Your task to perform on an android device: all mails in gmail Image 0: 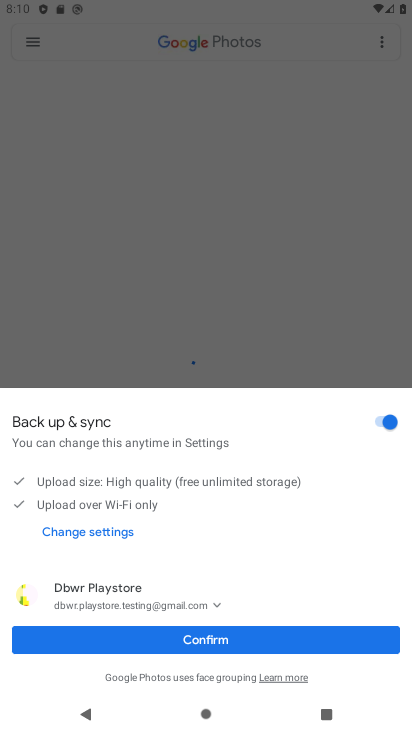
Step 0: press home button
Your task to perform on an android device: all mails in gmail Image 1: 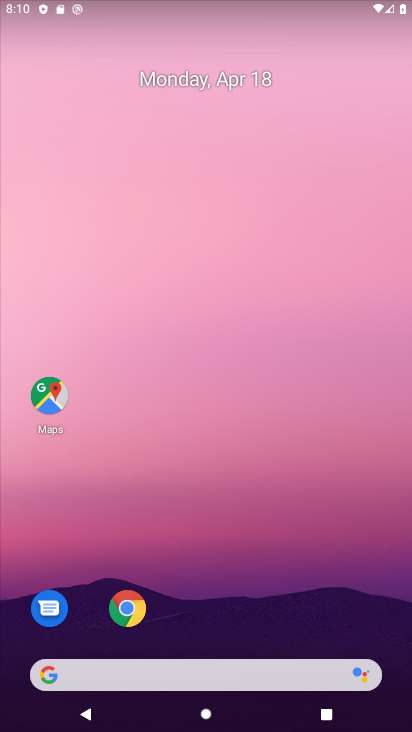
Step 1: drag from (184, 544) to (228, 25)
Your task to perform on an android device: all mails in gmail Image 2: 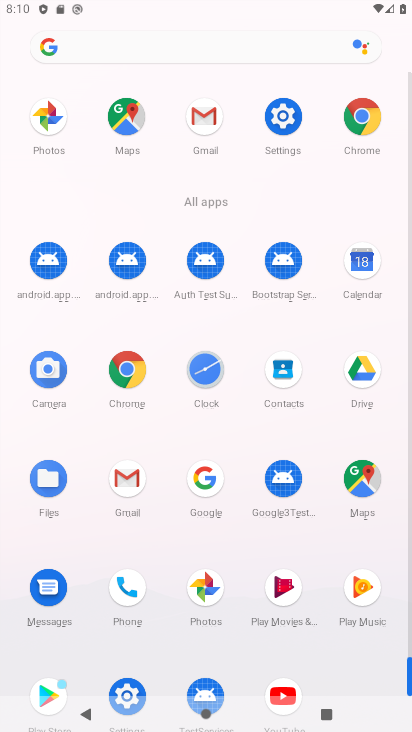
Step 2: click (205, 112)
Your task to perform on an android device: all mails in gmail Image 3: 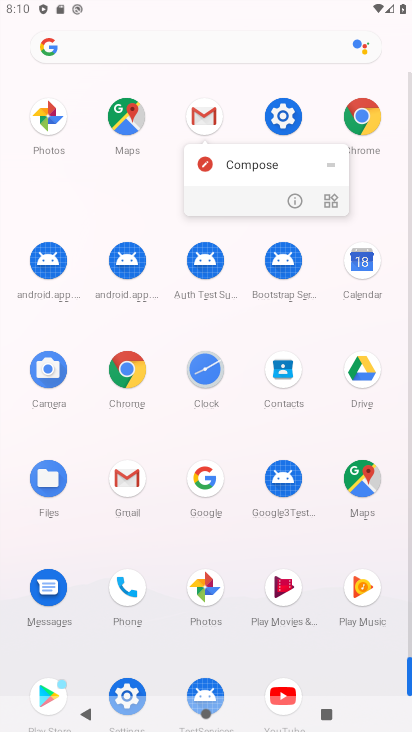
Step 3: click (205, 112)
Your task to perform on an android device: all mails in gmail Image 4: 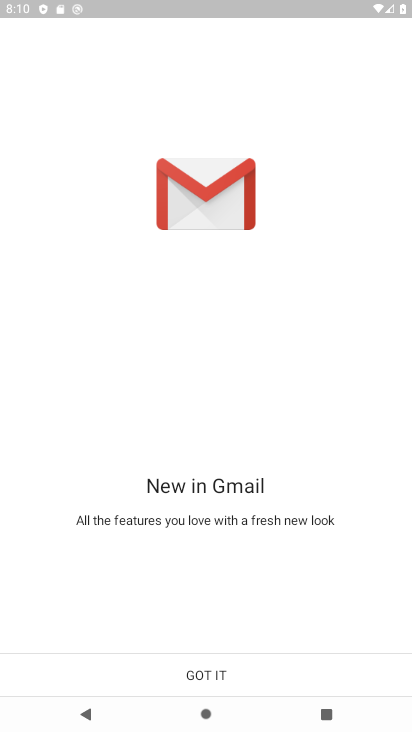
Step 4: click (205, 665)
Your task to perform on an android device: all mails in gmail Image 5: 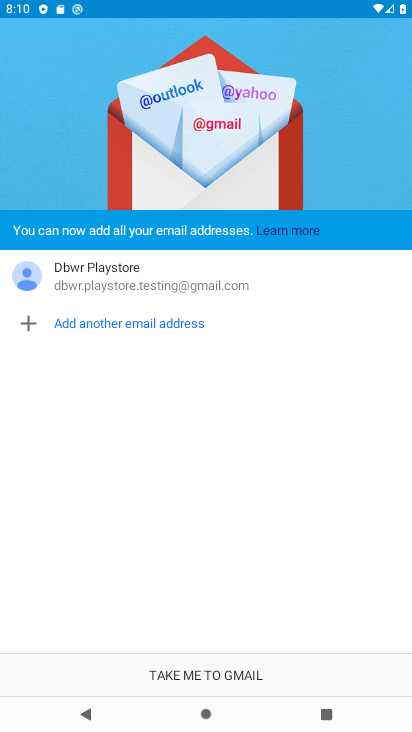
Step 5: click (207, 669)
Your task to perform on an android device: all mails in gmail Image 6: 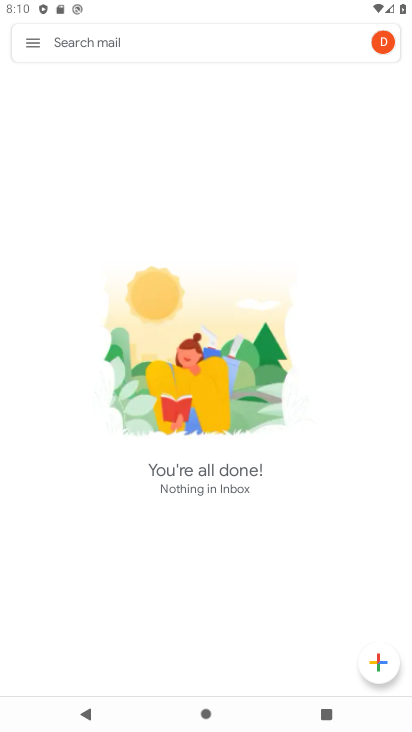
Step 6: click (33, 47)
Your task to perform on an android device: all mails in gmail Image 7: 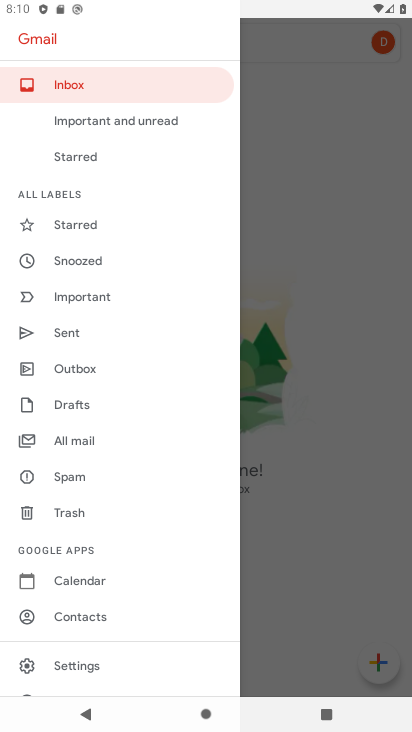
Step 7: drag from (88, 380) to (144, 274)
Your task to perform on an android device: all mails in gmail Image 8: 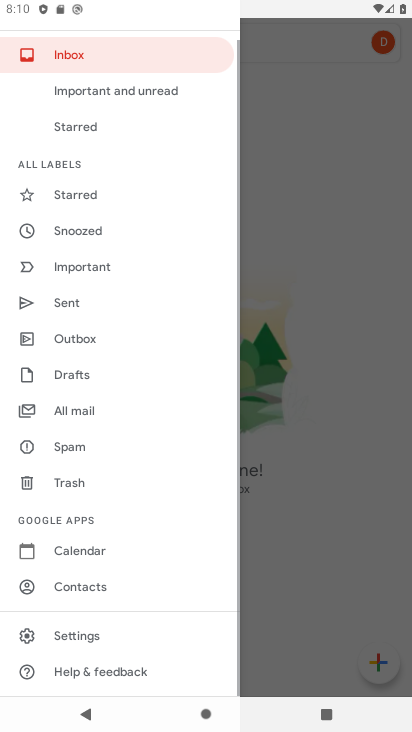
Step 8: click (82, 401)
Your task to perform on an android device: all mails in gmail Image 9: 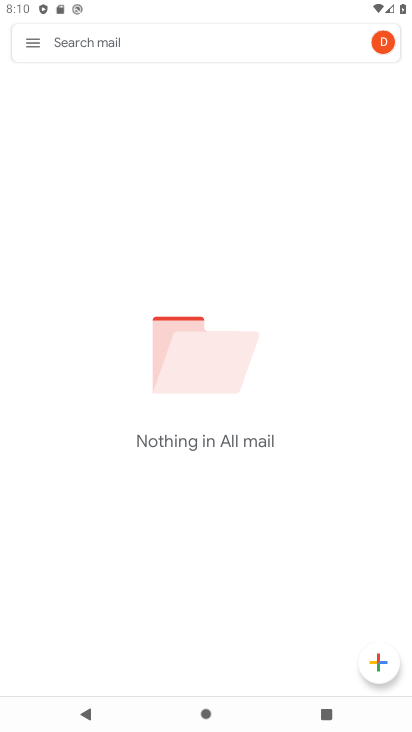
Step 9: task complete